Your task to perform on an android device: open app "eBay: The shopping marketplace" (install if not already installed) Image 0: 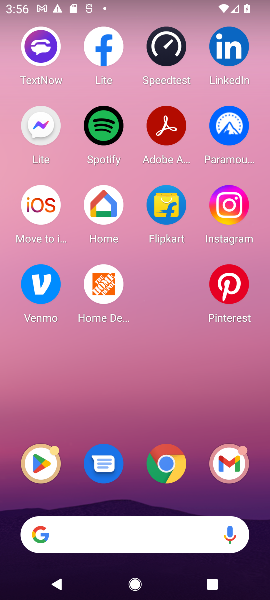
Step 0: drag from (94, 542) to (139, 16)
Your task to perform on an android device: open app "eBay: The shopping marketplace" (install if not already installed) Image 1: 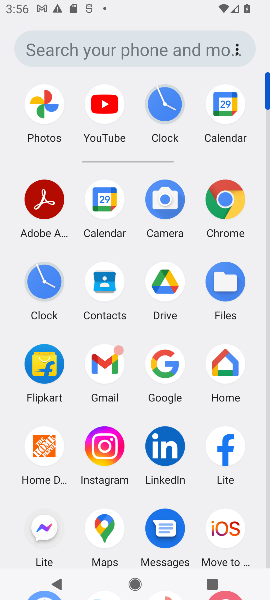
Step 1: drag from (128, 507) to (129, 234)
Your task to perform on an android device: open app "eBay: The shopping marketplace" (install if not already installed) Image 2: 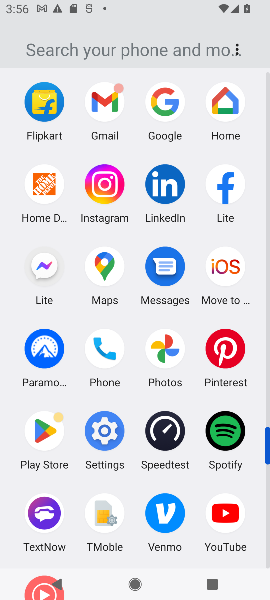
Step 2: click (47, 435)
Your task to perform on an android device: open app "eBay: The shopping marketplace" (install if not already installed) Image 3: 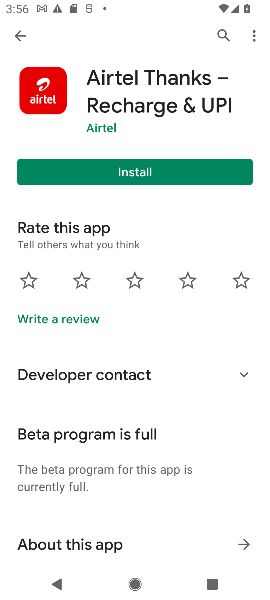
Step 3: click (222, 36)
Your task to perform on an android device: open app "eBay: The shopping marketplace" (install if not already installed) Image 4: 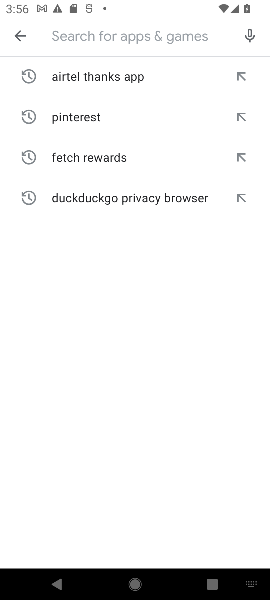
Step 4: click (191, 45)
Your task to perform on an android device: open app "eBay: The shopping marketplace" (install if not already installed) Image 5: 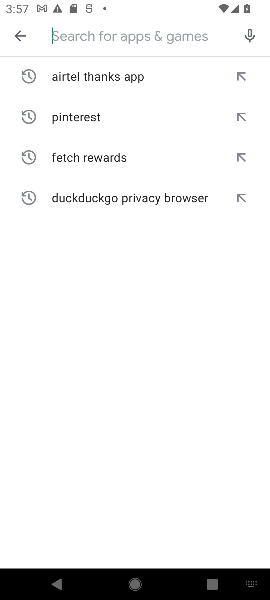
Step 5: type "eBay: The shopping marketplace"
Your task to perform on an android device: open app "eBay: The shopping marketplace" (install if not already installed) Image 6: 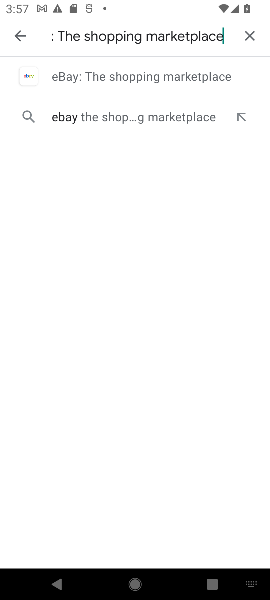
Step 6: click (163, 77)
Your task to perform on an android device: open app "eBay: The shopping marketplace" (install if not already installed) Image 7: 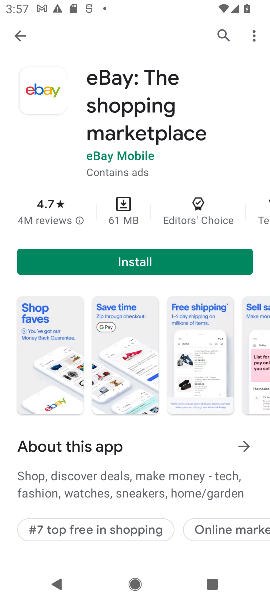
Step 7: click (145, 261)
Your task to perform on an android device: open app "eBay: The shopping marketplace" (install if not already installed) Image 8: 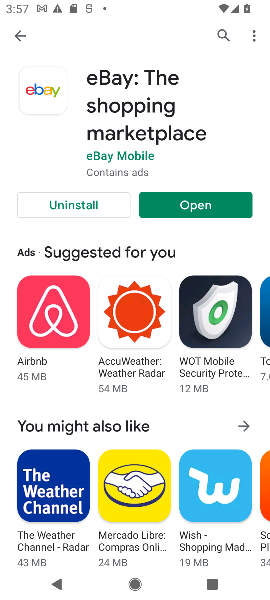
Step 8: click (188, 206)
Your task to perform on an android device: open app "eBay: The shopping marketplace" (install if not already installed) Image 9: 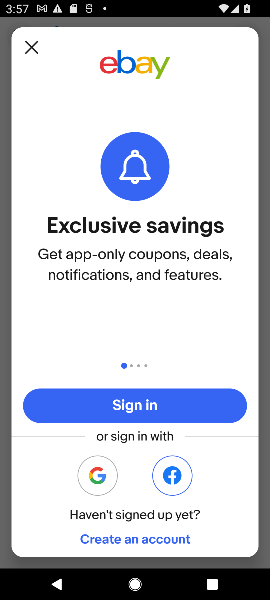
Step 9: click (32, 51)
Your task to perform on an android device: open app "eBay: The shopping marketplace" (install if not already installed) Image 10: 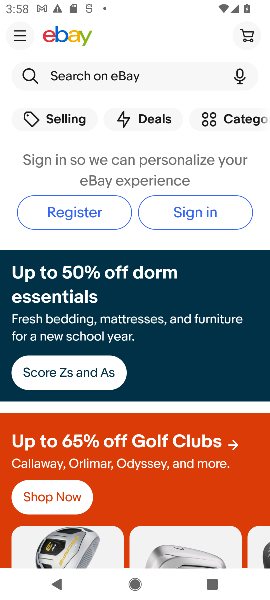
Step 10: task complete